Your task to perform on an android device: allow notifications from all sites in the chrome app Image 0: 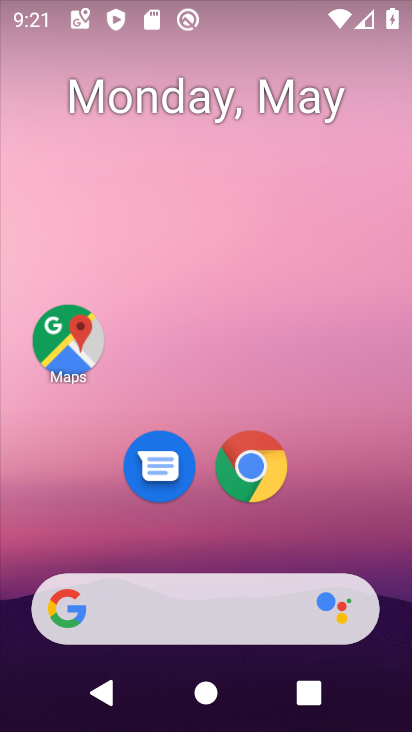
Step 0: drag from (240, 642) to (195, 108)
Your task to perform on an android device: allow notifications from all sites in the chrome app Image 1: 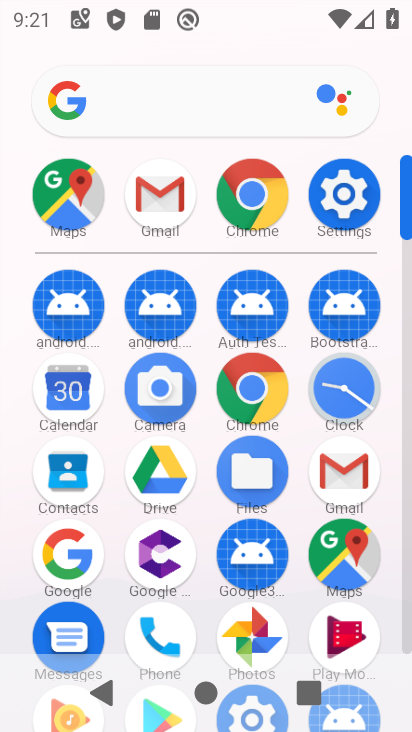
Step 1: click (254, 195)
Your task to perform on an android device: allow notifications from all sites in the chrome app Image 2: 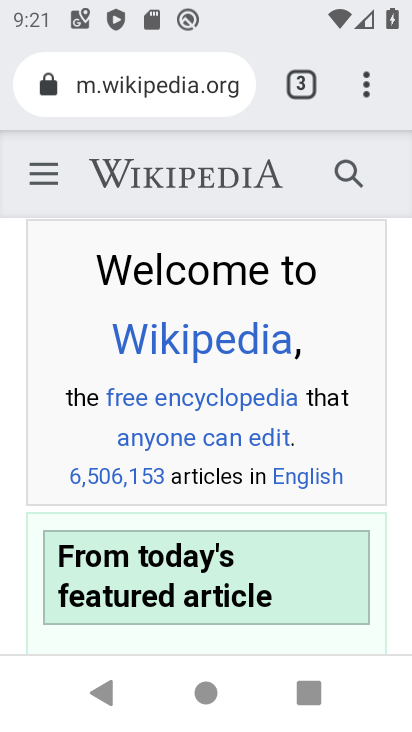
Step 2: click (364, 86)
Your task to perform on an android device: allow notifications from all sites in the chrome app Image 3: 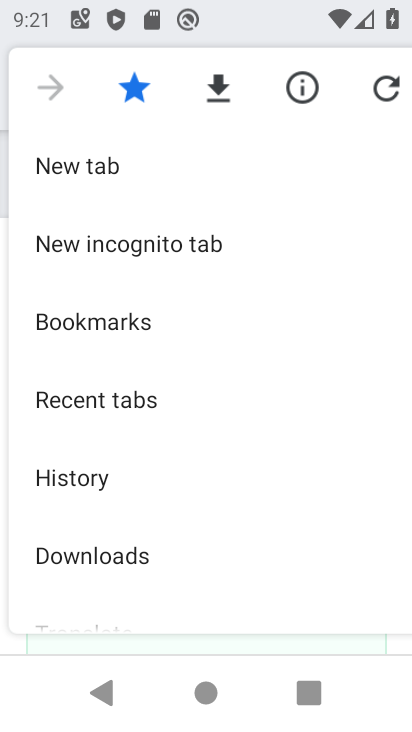
Step 3: drag from (165, 404) to (201, 103)
Your task to perform on an android device: allow notifications from all sites in the chrome app Image 4: 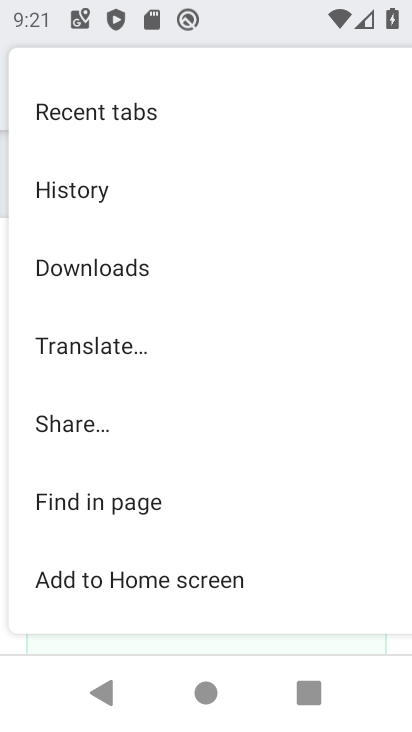
Step 4: drag from (199, 455) to (204, 249)
Your task to perform on an android device: allow notifications from all sites in the chrome app Image 5: 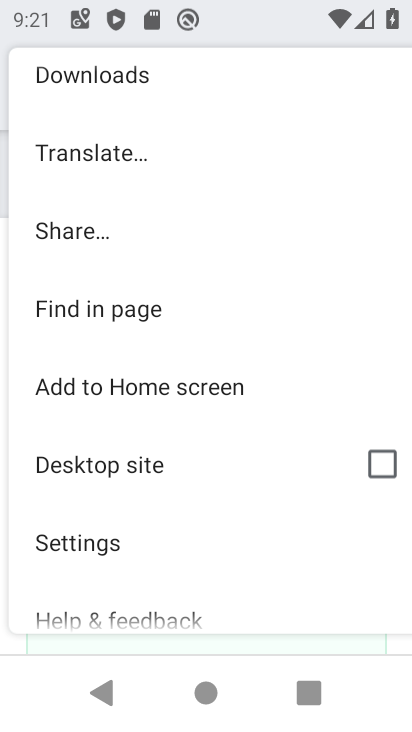
Step 5: click (100, 540)
Your task to perform on an android device: allow notifications from all sites in the chrome app Image 6: 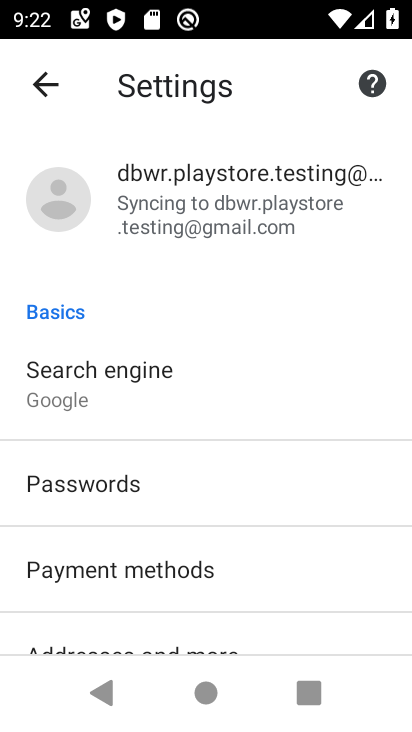
Step 6: drag from (198, 520) to (191, 121)
Your task to perform on an android device: allow notifications from all sites in the chrome app Image 7: 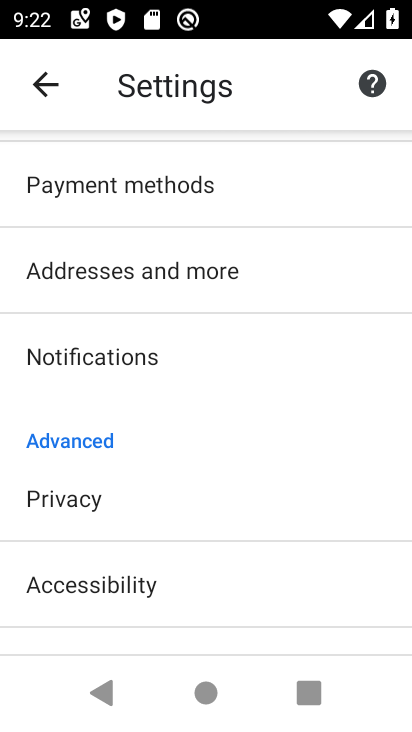
Step 7: click (99, 356)
Your task to perform on an android device: allow notifications from all sites in the chrome app Image 8: 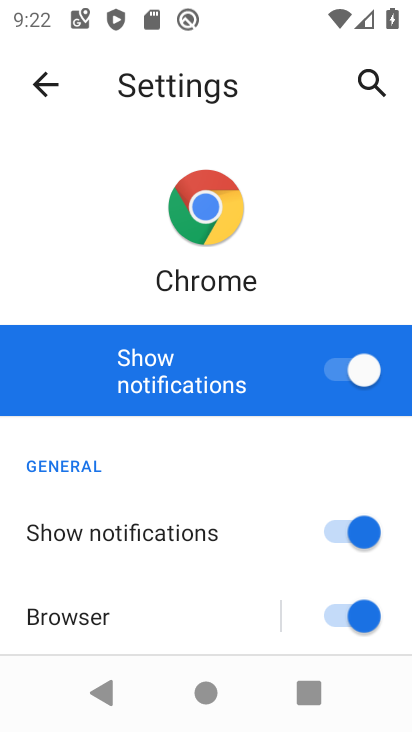
Step 8: task complete